Your task to perform on an android device: install app "Pandora - Music & Podcasts" Image 0: 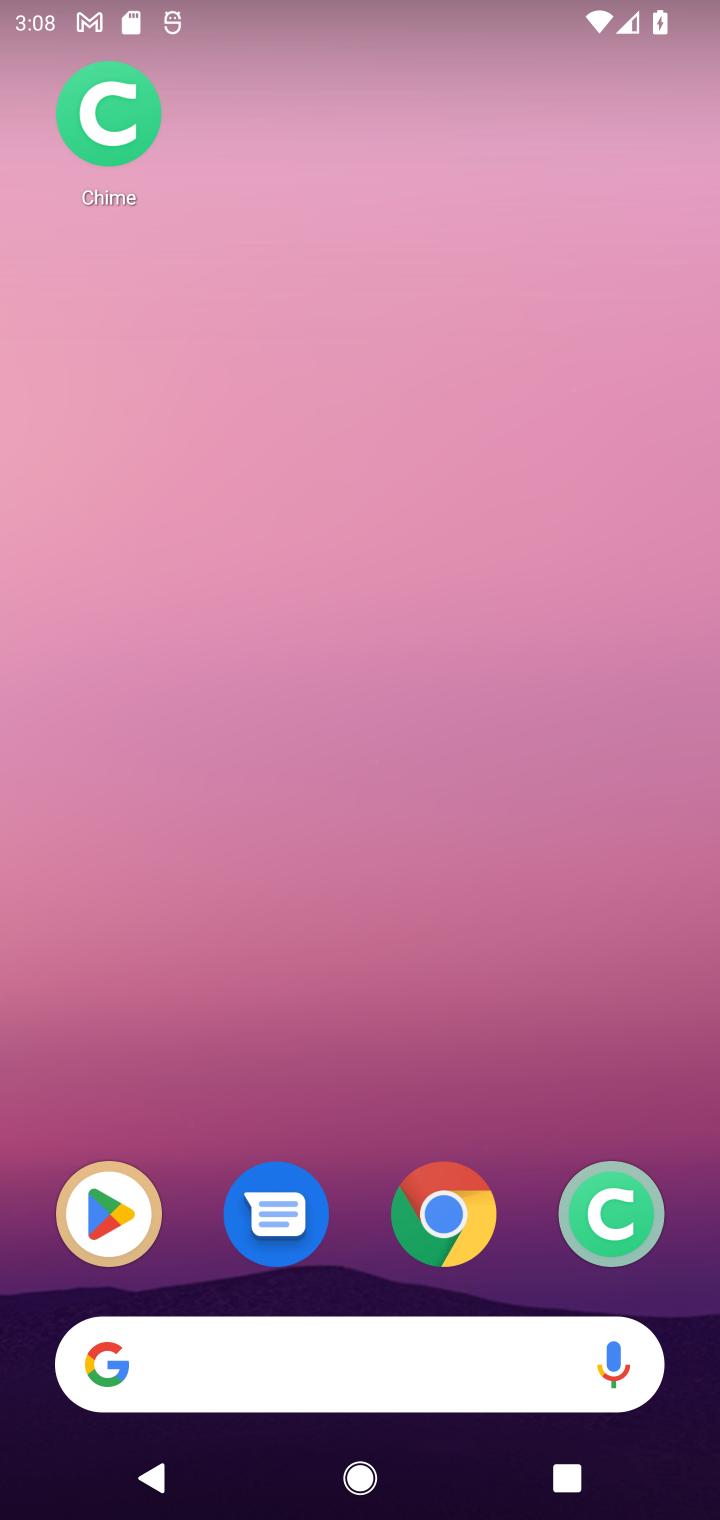
Step 0: click (106, 1217)
Your task to perform on an android device: install app "Pandora - Music & Podcasts" Image 1: 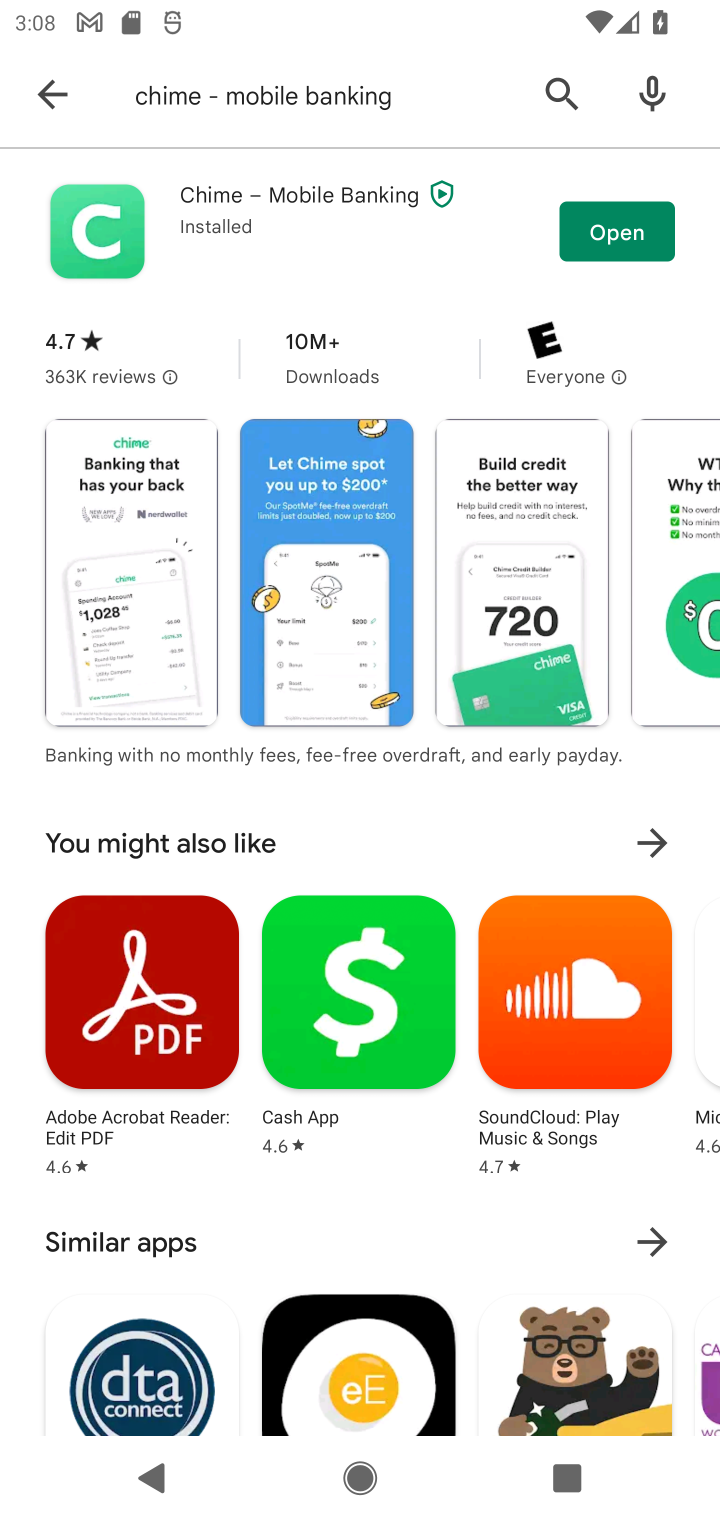
Step 1: click (566, 105)
Your task to perform on an android device: install app "Pandora - Music & Podcasts" Image 2: 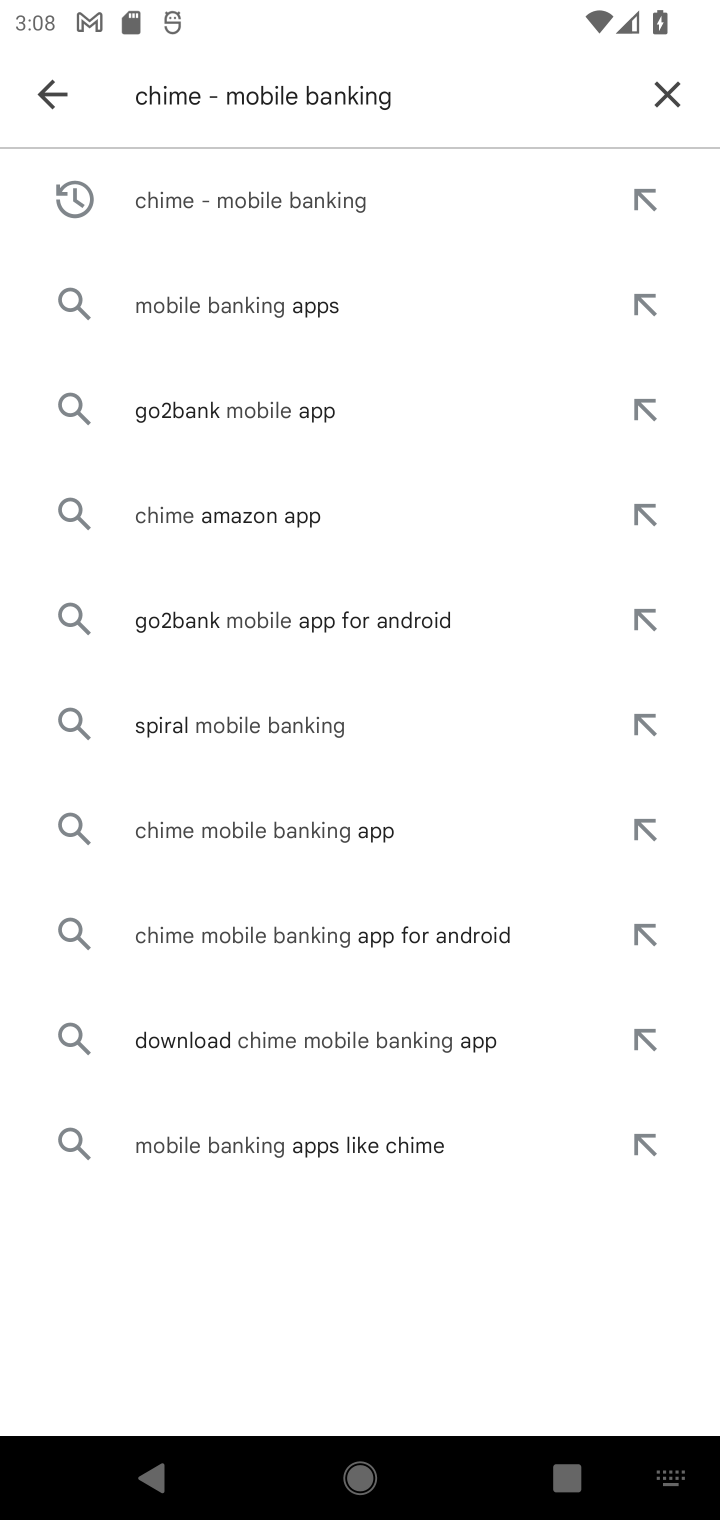
Step 2: click (670, 94)
Your task to perform on an android device: install app "Pandora - Music & Podcasts" Image 3: 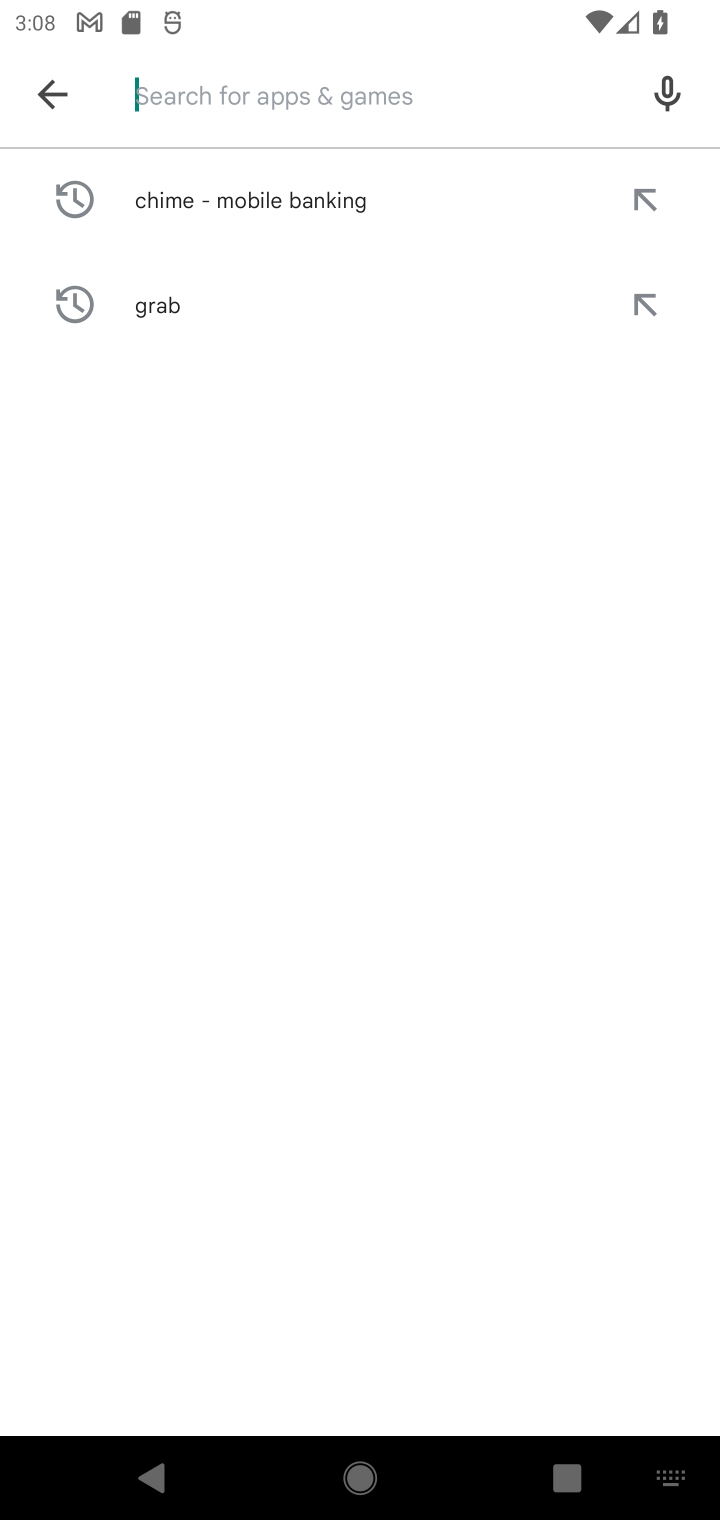
Step 3: type "Pandora - Music & Podcasts"
Your task to perform on an android device: install app "Pandora - Music & Podcasts" Image 4: 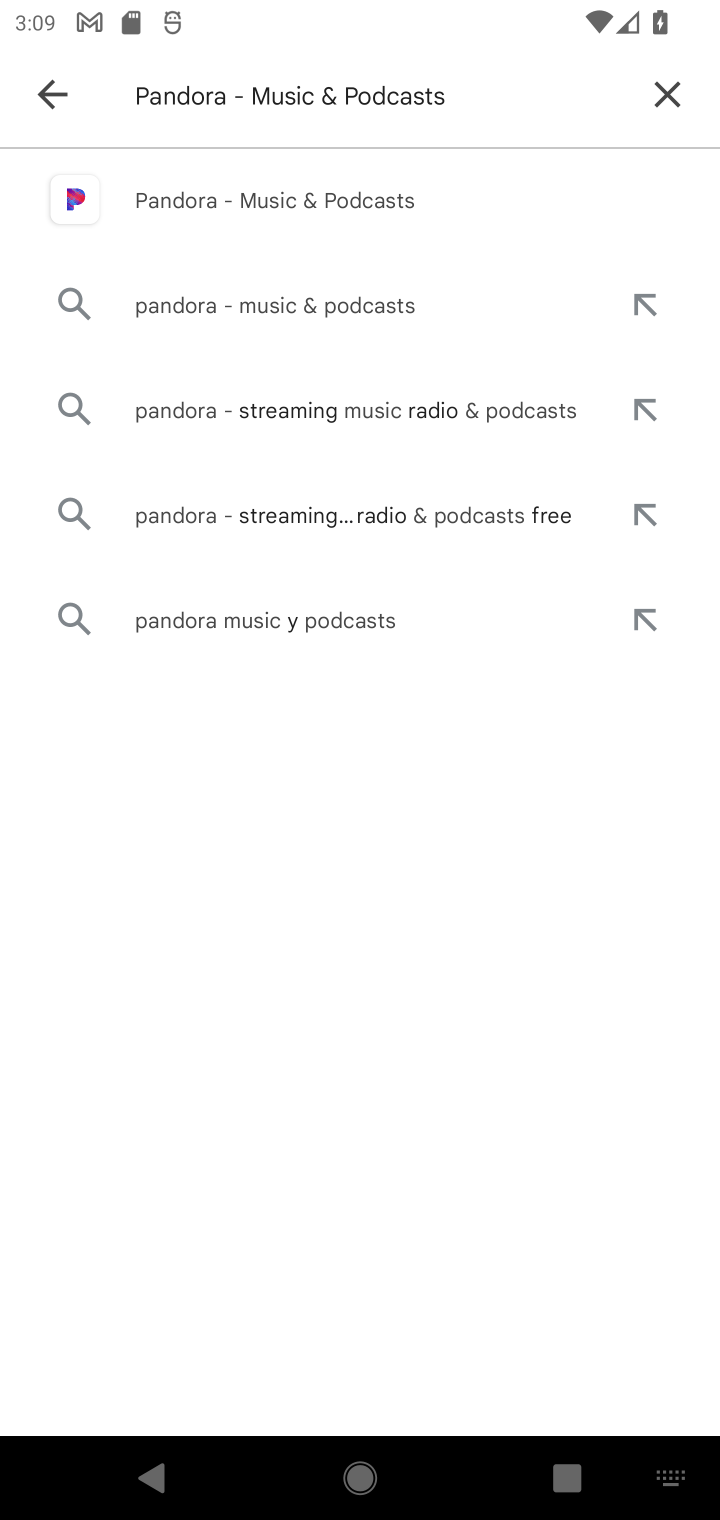
Step 4: click (381, 206)
Your task to perform on an android device: install app "Pandora - Music & Podcasts" Image 5: 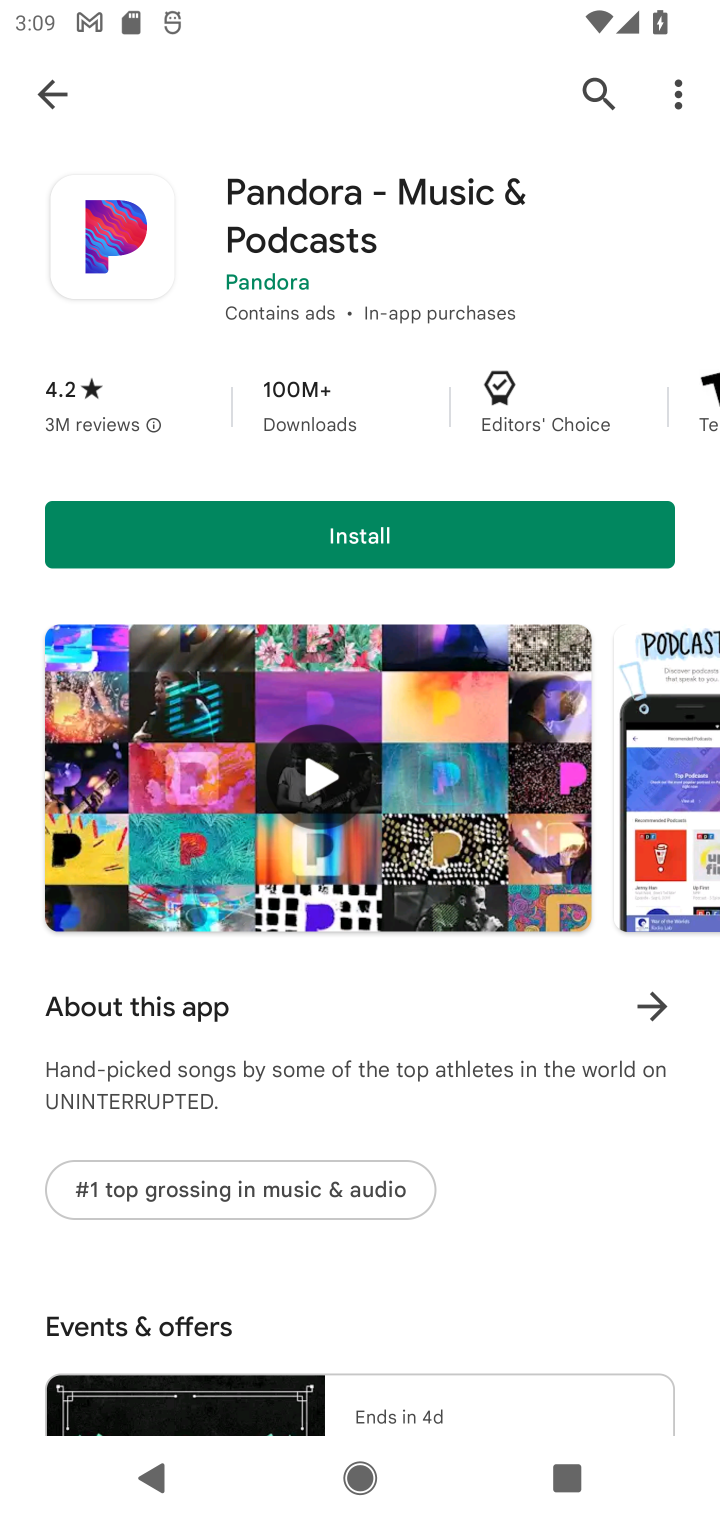
Step 5: click (455, 526)
Your task to perform on an android device: install app "Pandora - Music & Podcasts" Image 6: 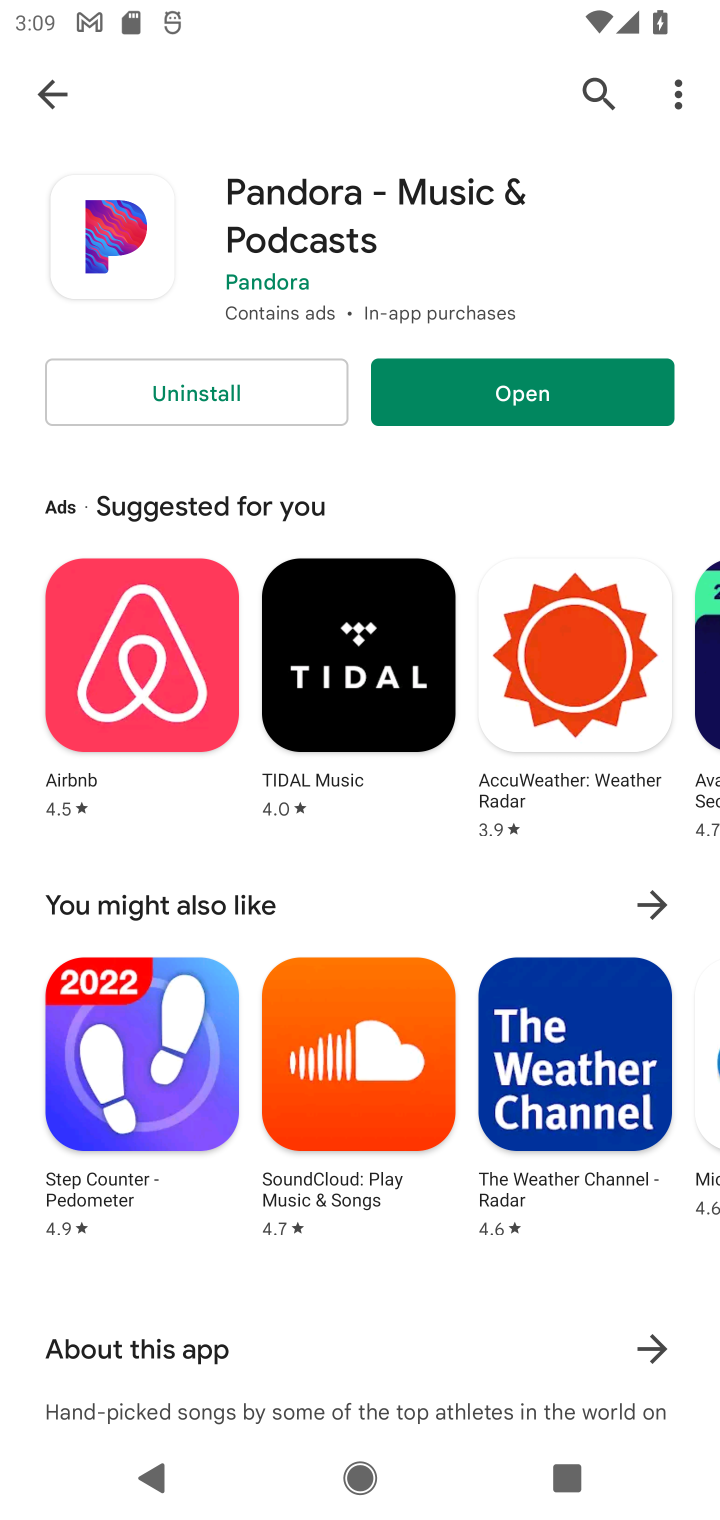
Step 6: task complete